Your task to perform on an android device: Open notification settings Image 0: 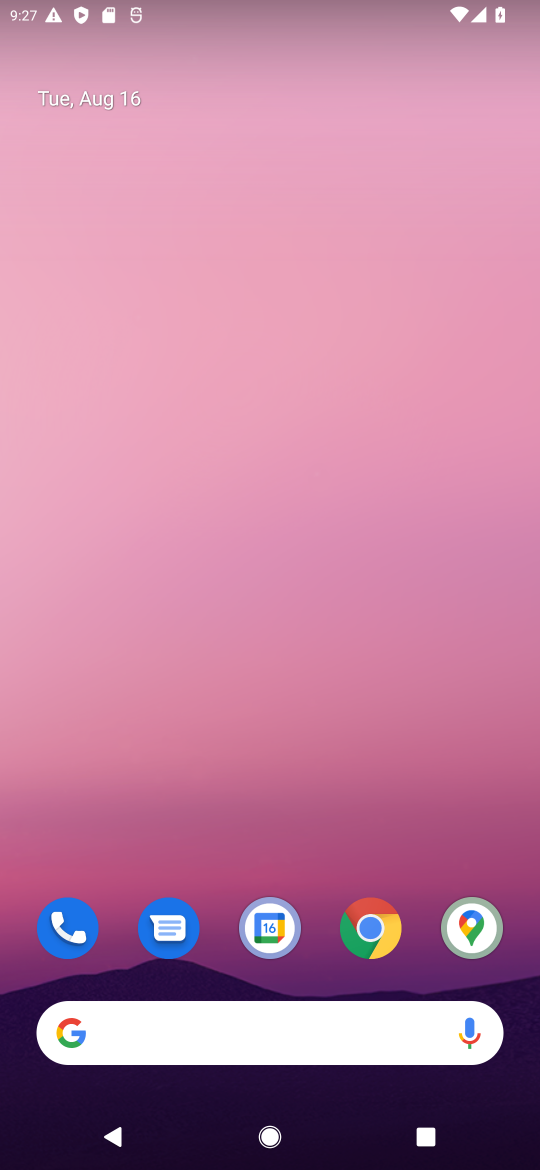
Step 0: press home button
Your task to perform on an android device: Open notification settings Image 1: 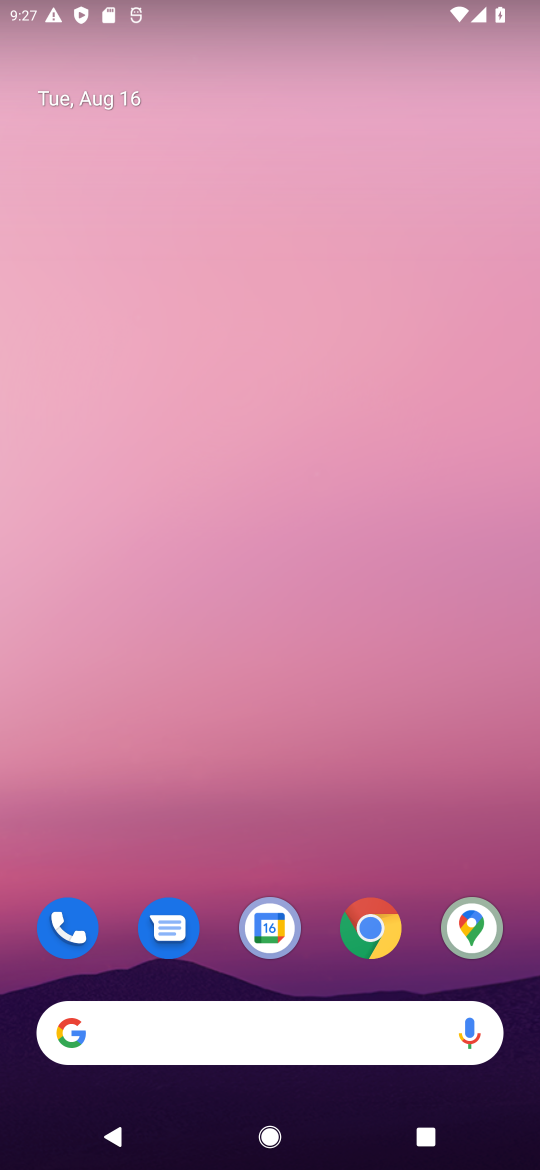
Step 1: drag from (300, 879) to (238, 137)
Your task to perform on an android device: Open notification settings Image 2: 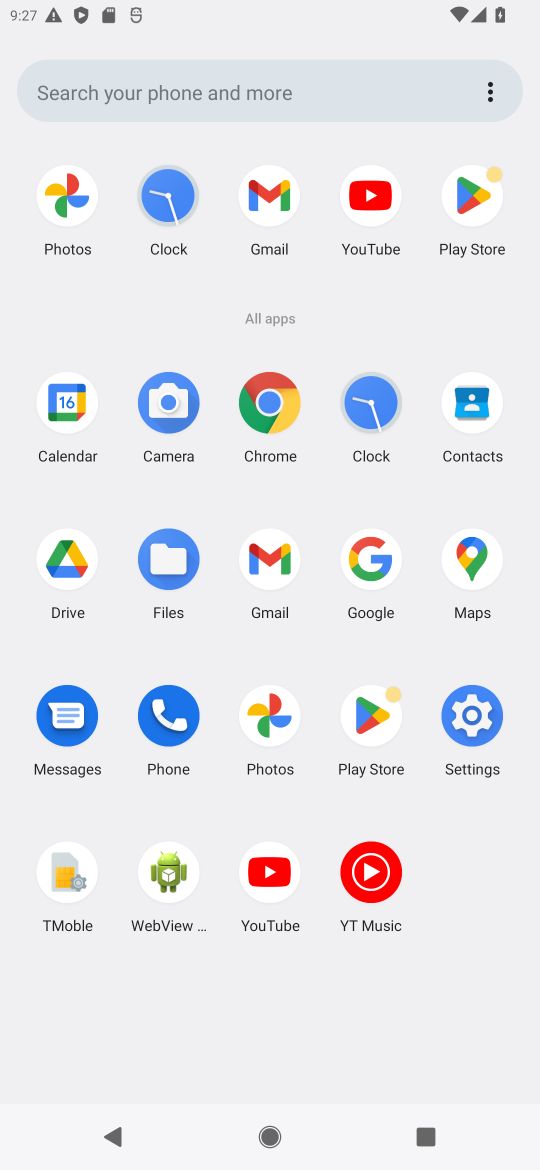
Step 2: click (457, 698)
Your task to perform on an android device: Open notification settings Image 3: 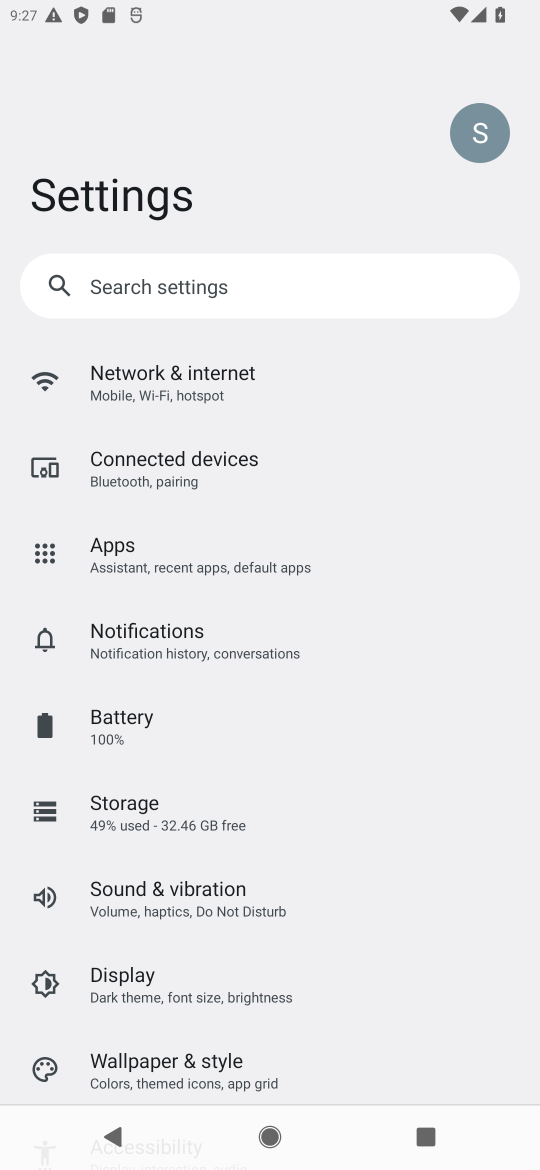
Step 3: click (151, 641)
Your task to perform on an android device: Open notification settings Image 4: 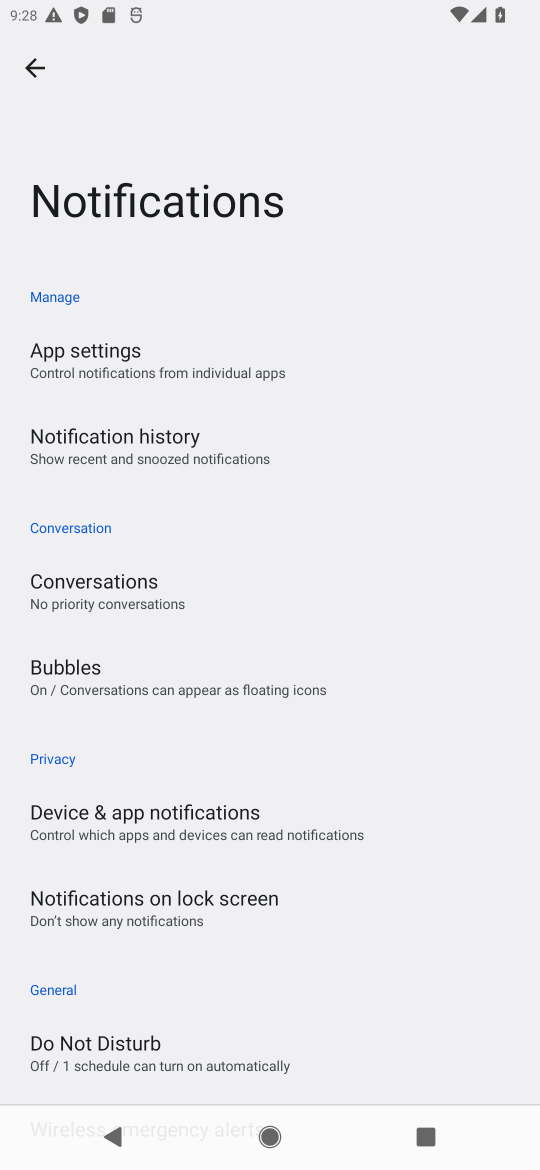
Step 4: task complete